Your task to perform on an android device: change the clock display to show seconds Image 0: 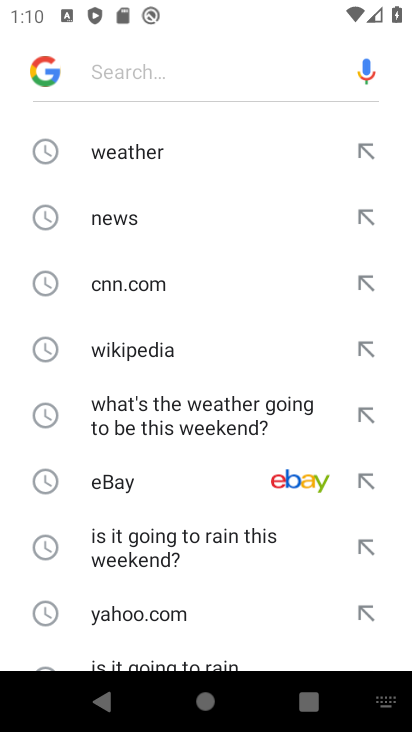
Step 0: press home button
Your task to perform on an android device: change the clock display to show seconds Image 1: 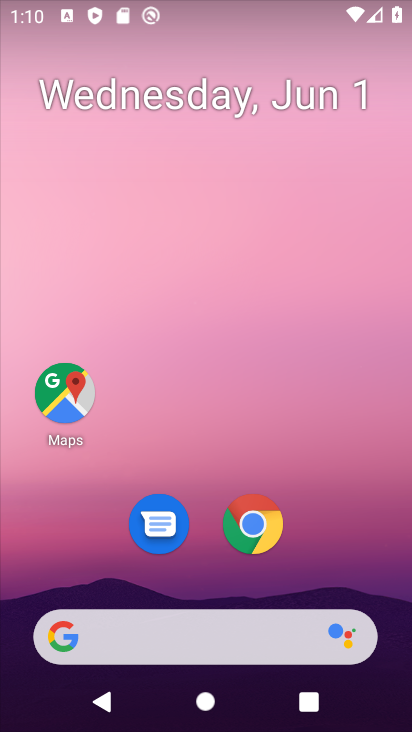
Step 1: drag from (313, 547) to (297, 120)
Your task to perform on an android device: change the clock display to show seconds Image 2: 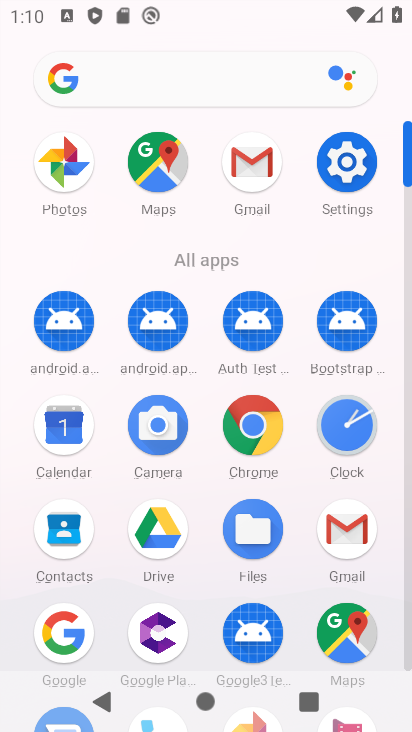
Step 2: click (337, 429)
Your task to perform on an android device: change the clock display to show seconds Image 3: 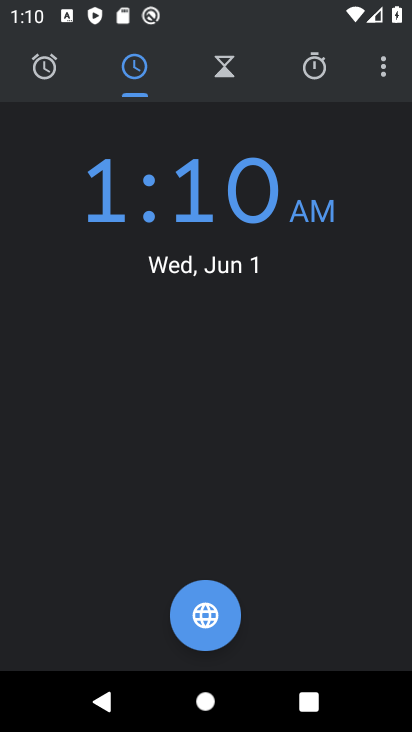
Step 3: click (384, 64)
Your task to perform on an android device: change the clock display to show seconds Image 4: 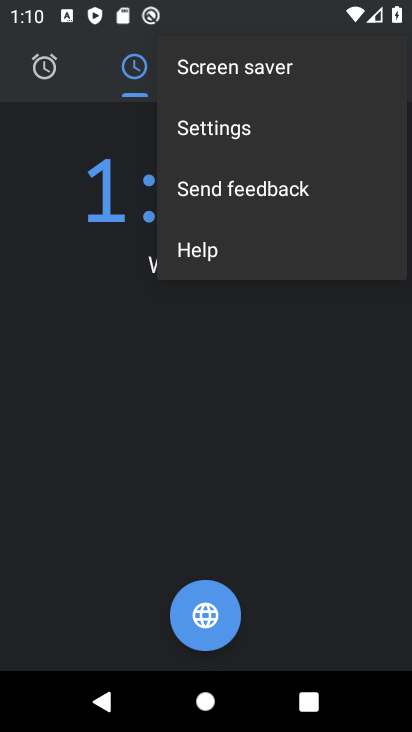
Step 4: click (313, 132)
Your task to perform on an android device: change the clock display to show seconds Image 5: 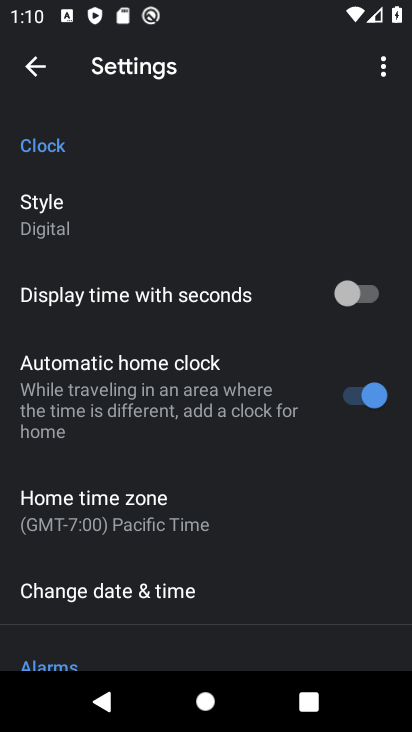
Step 5: click (377, 297)
Your task to perform on an android device: change the clock display to show seconds Image 6: 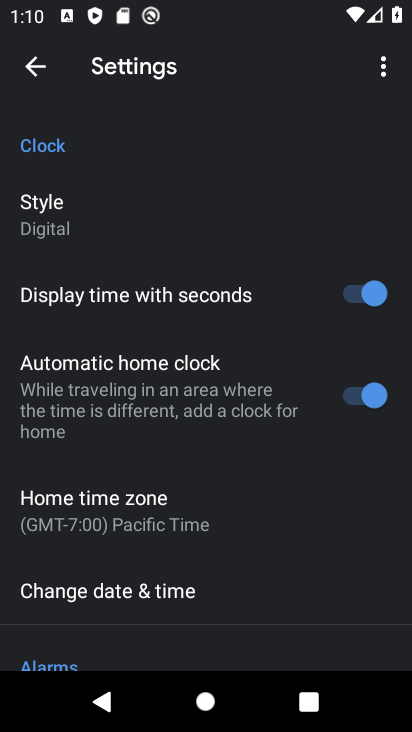
Step 6: task complete